Your task to perform on an android device: check data usage Image 0: 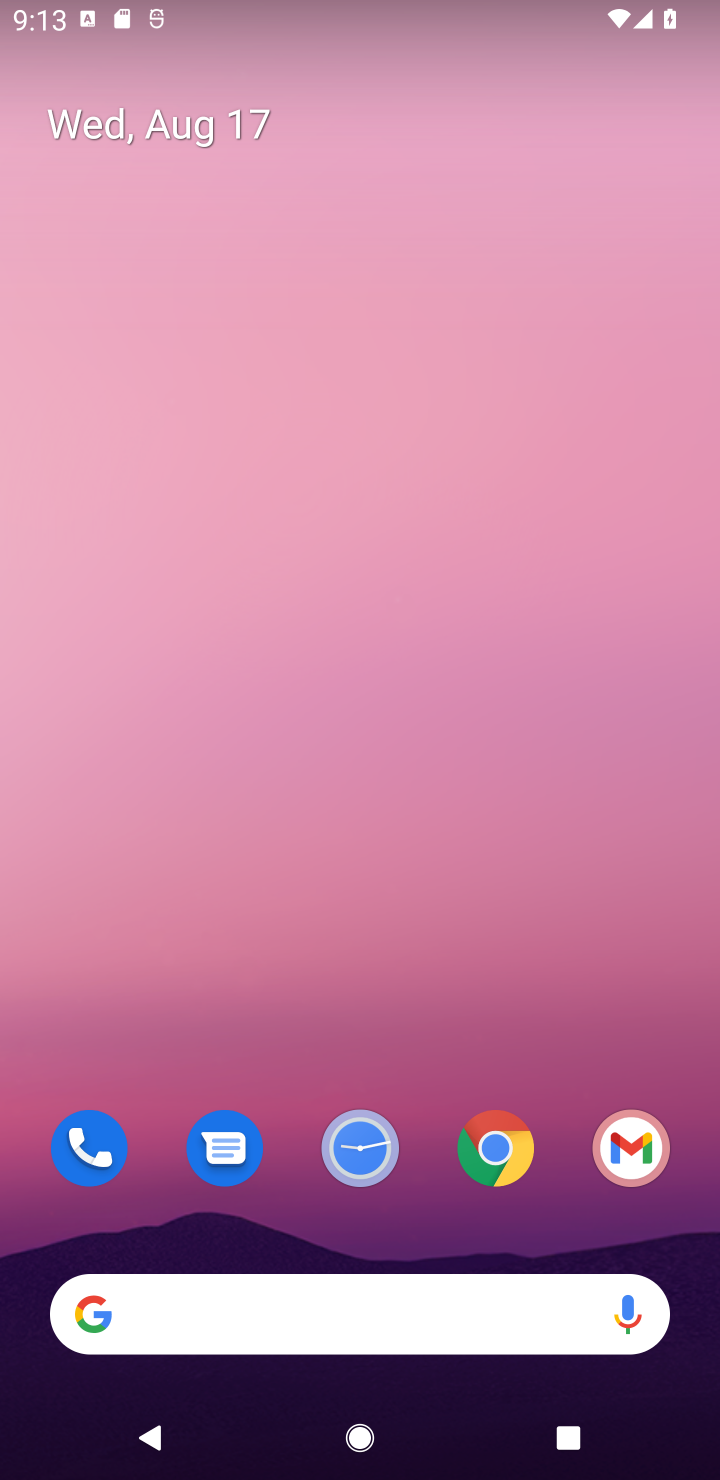
Step 0: drag from (559, 1237) to (546, 342)
Your task to perform on an android device: check data usage Image 1: 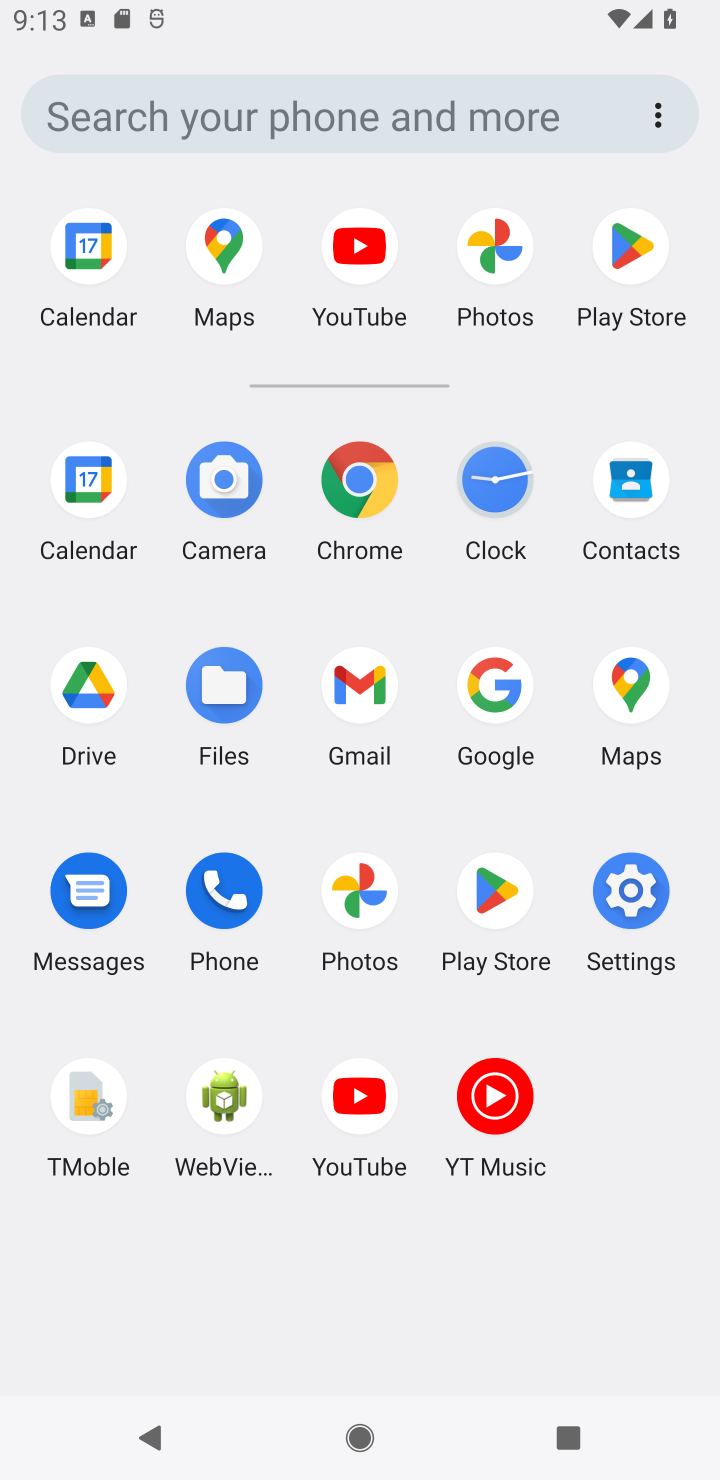
Step 1: click (634, 897)
Your task to perform on an android device: check data usage Image 2: 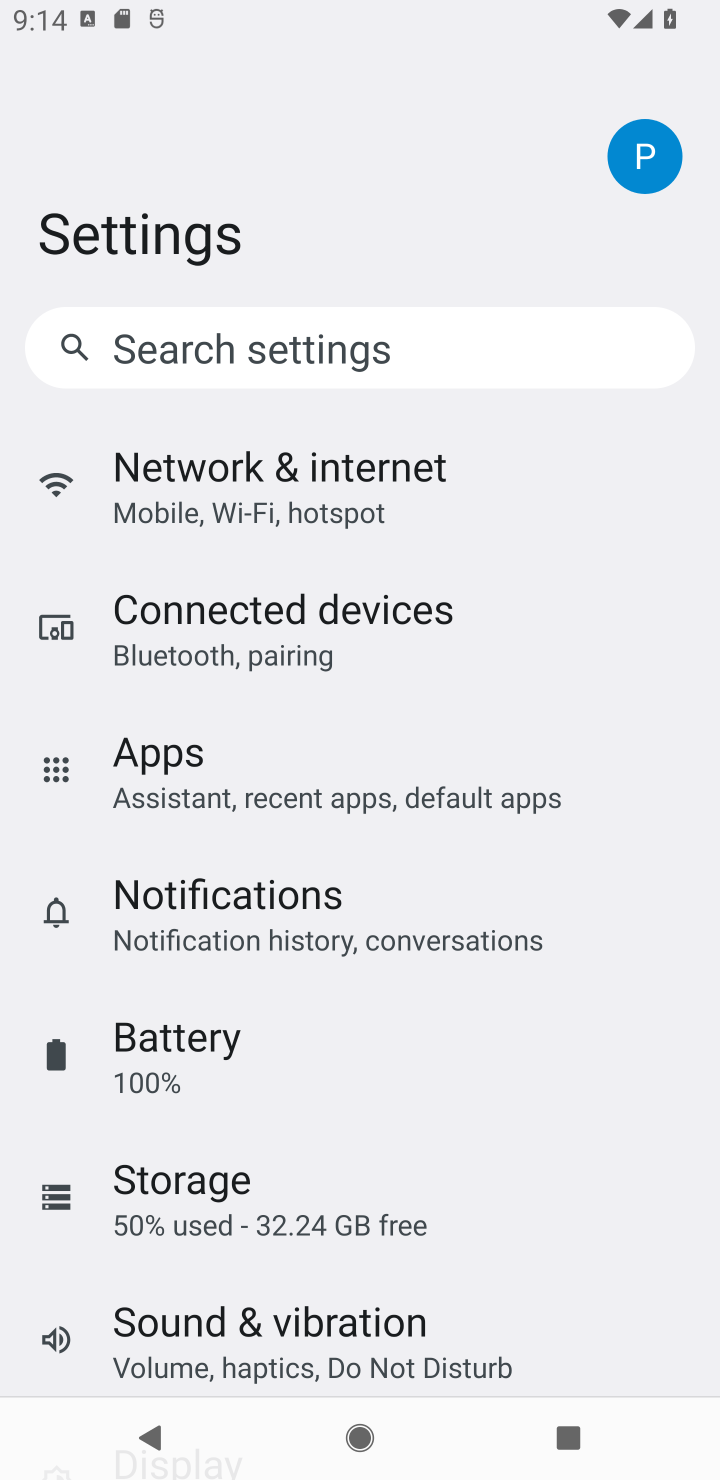
Step 2: click (255, 476)
Your task to perform on an android device: check data usage Image 3: 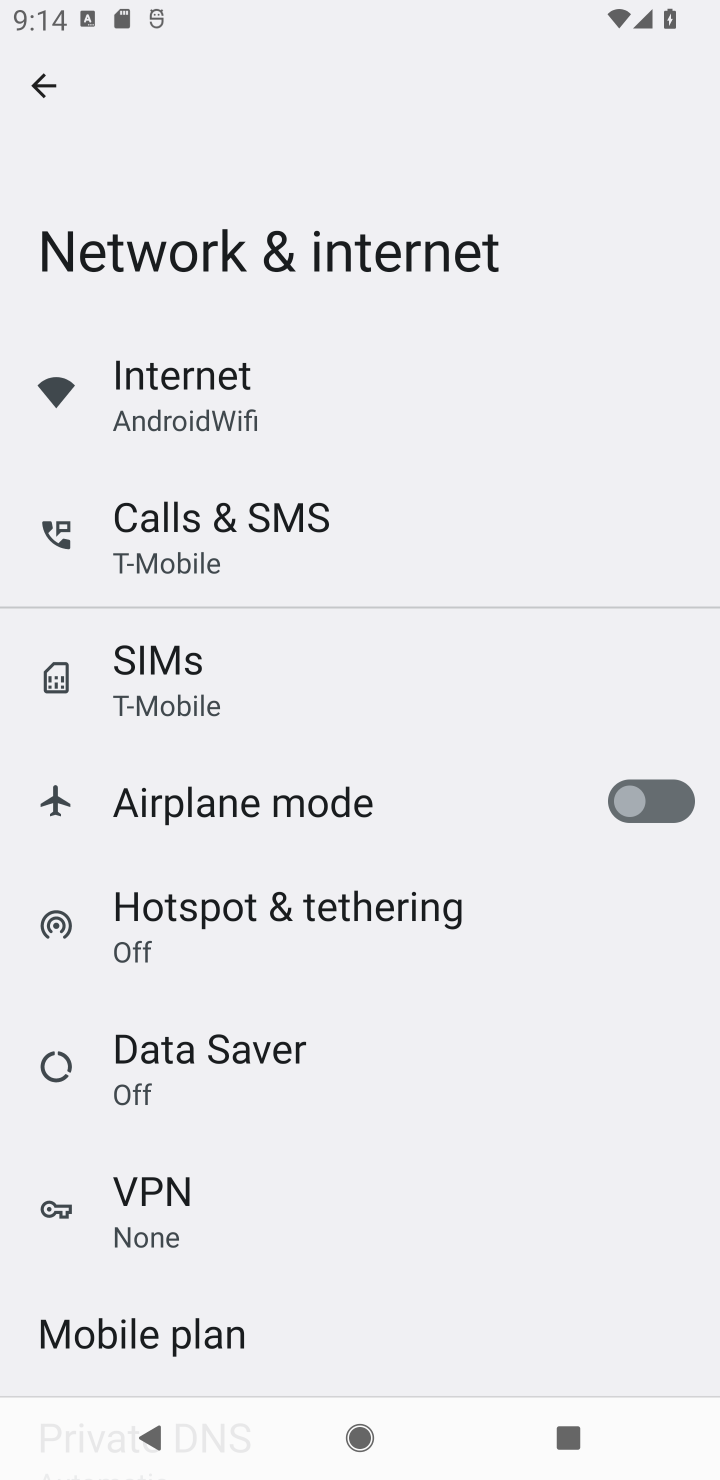
Step 3: click (182, 375)
Your task to perform on an android device: check data usage Image 4: 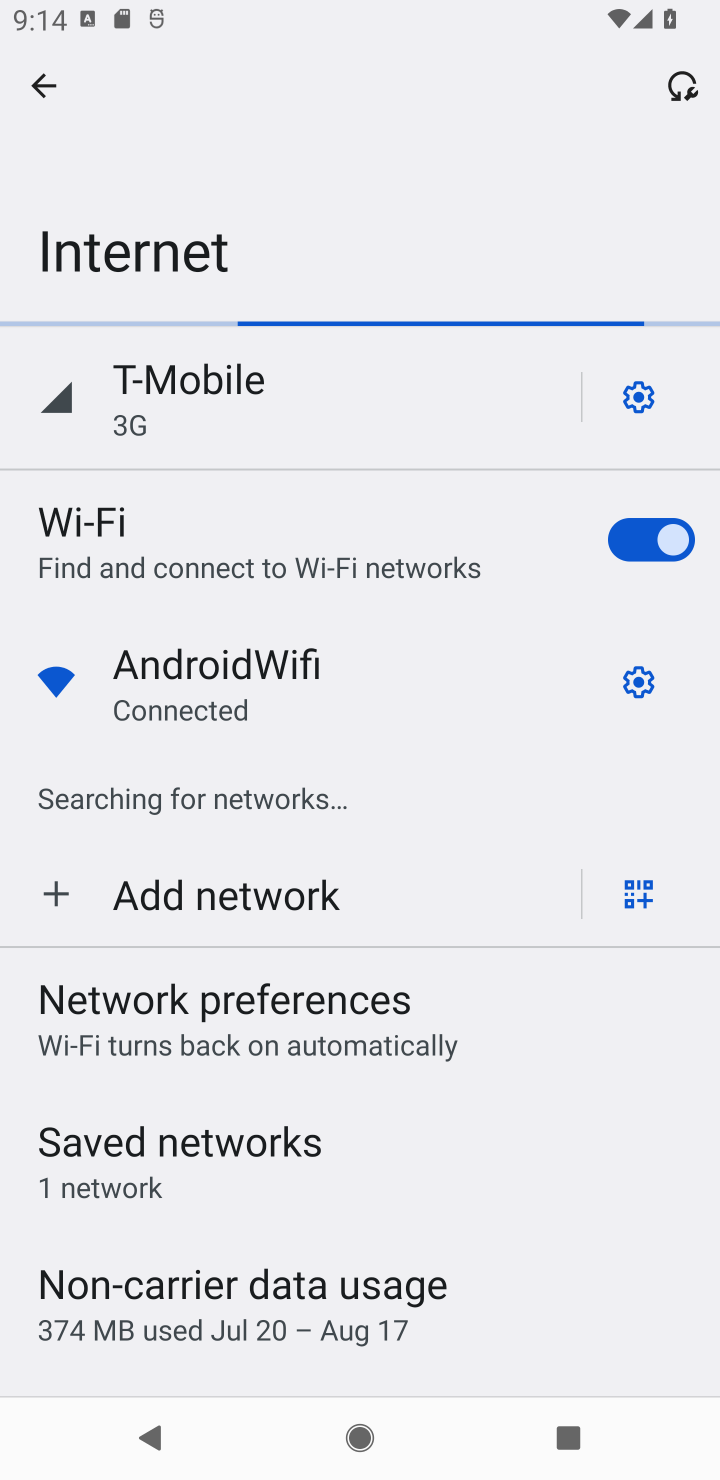
Step 4: click (641, 400)
Your task to perform on an android device: check data usage Image 5: 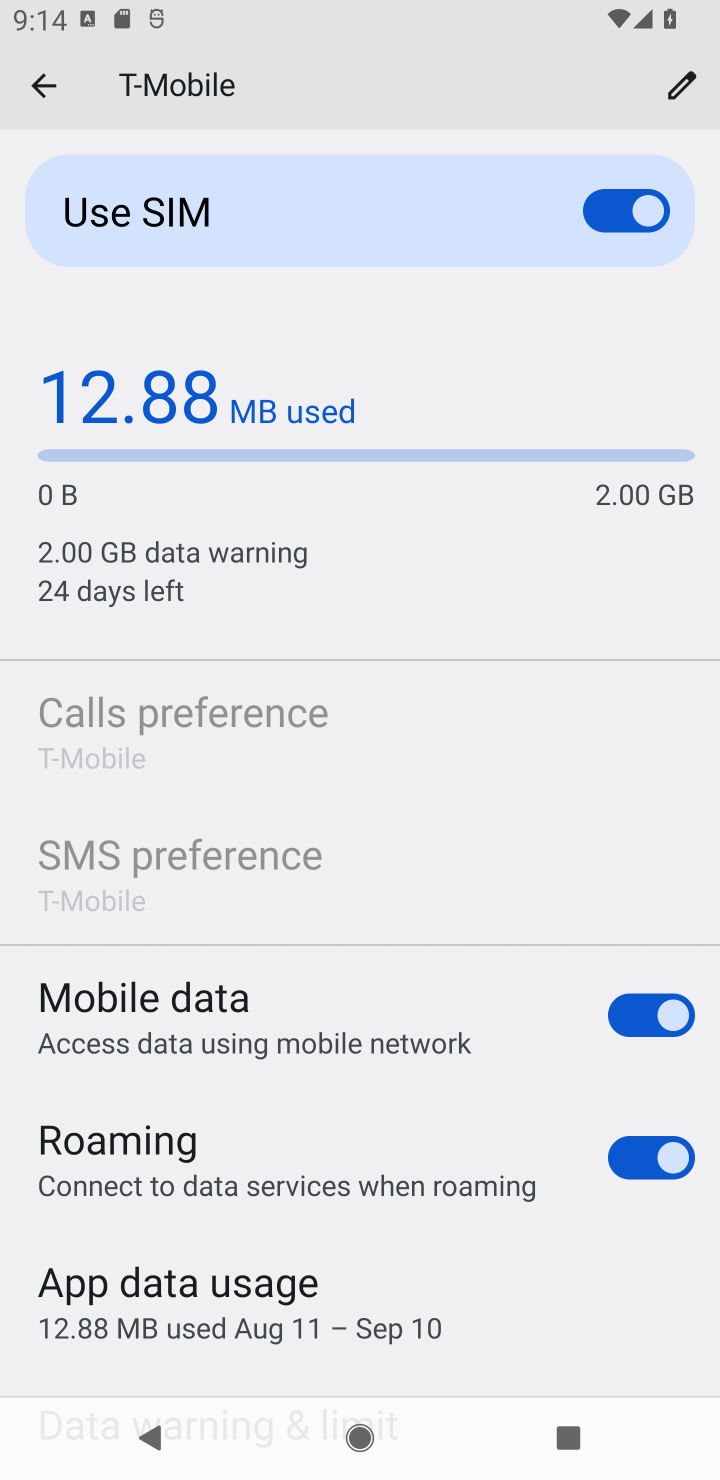
Step 5: task complete